Your task to perform on an android device: What's the weather going to be tomorrow? Image 0: 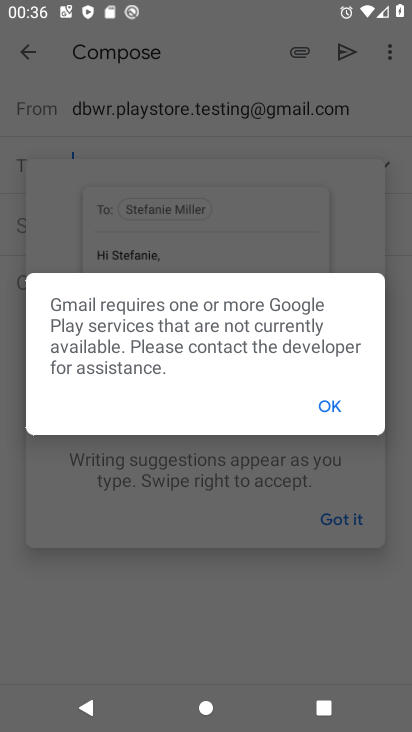
Step 0: press home button
Your task to perform on an android device: What's the weather going to be tomorrow? Image 1: 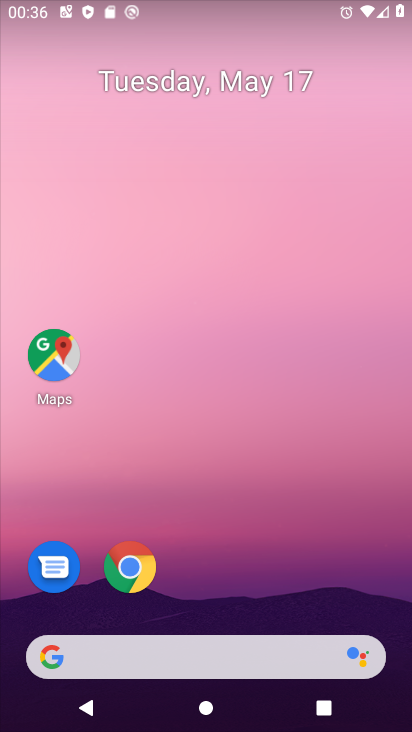
Step 1: click (226, 656)
Your task to perform on an android device: What's the weather going to be tomorrow? Image 2: 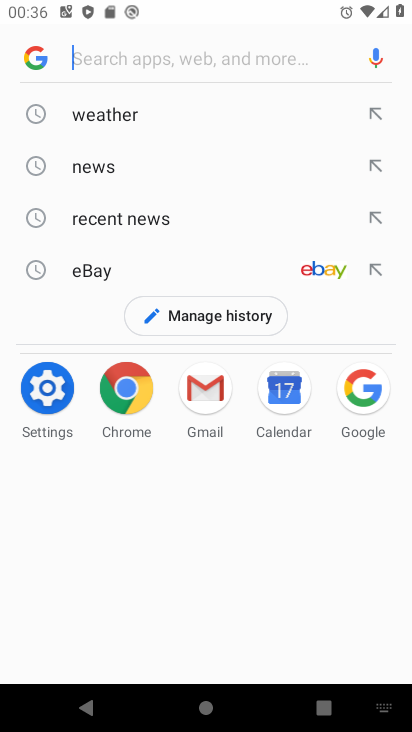
Step 2: click (114, 120)
Your task to perform on an android device: What's the weather going to be tomorrow? Image 3: 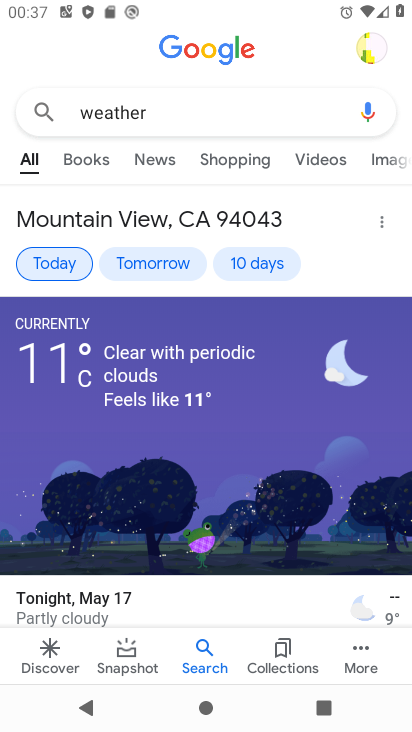
Step 3: click (157, 268)
Your task to perform on an android device: What's the weather going to be tomorrow? Image 4: 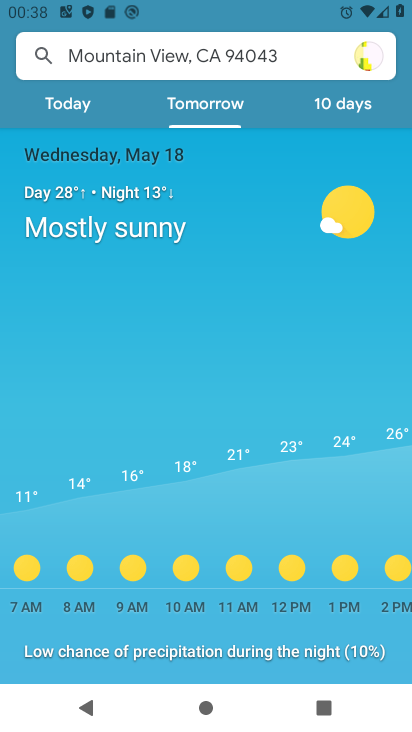
Step 4: task complete